Your task to perform on an android device: Go to privacy settings Image 0: 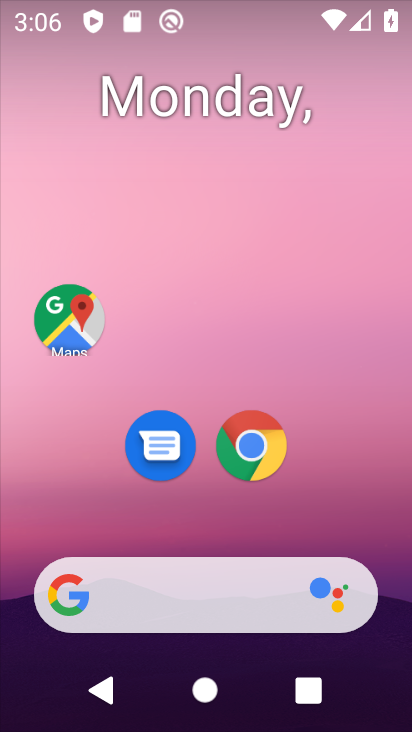
Step 0: drag from (310, 514) to (397, 77)
Your task to perform on an android device: Go to privacy settings Image 1: 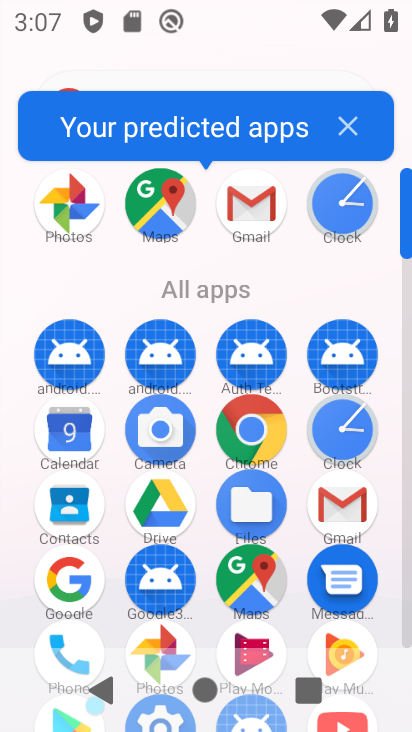
Step 1: click (407, 635)
Your task to perform on an android device: Go to privacy settings Image 2: 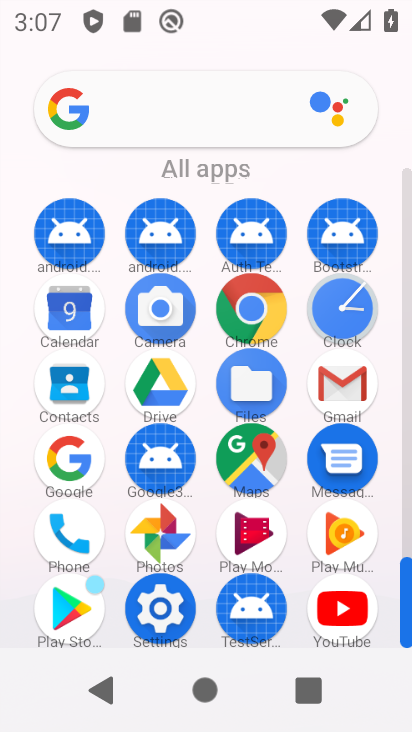
Step 2: click (145, 602)
Your task to perform on an android device: Go to privacy settings Image 3: 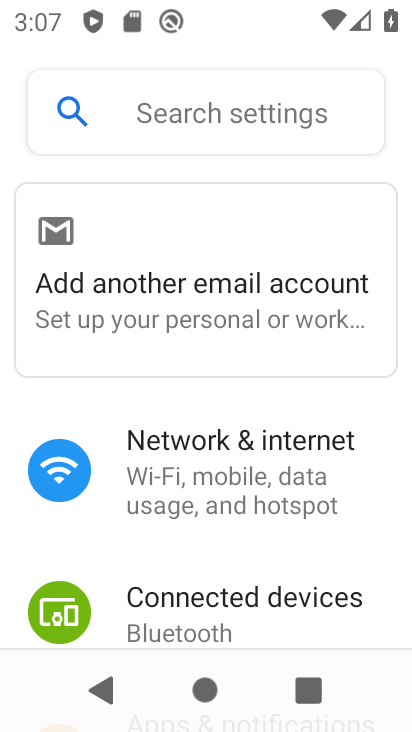
Step 3: drag from (227, 603) to (283, 191)
Your task to perform on an android device: Go to privacy settings Image 4: 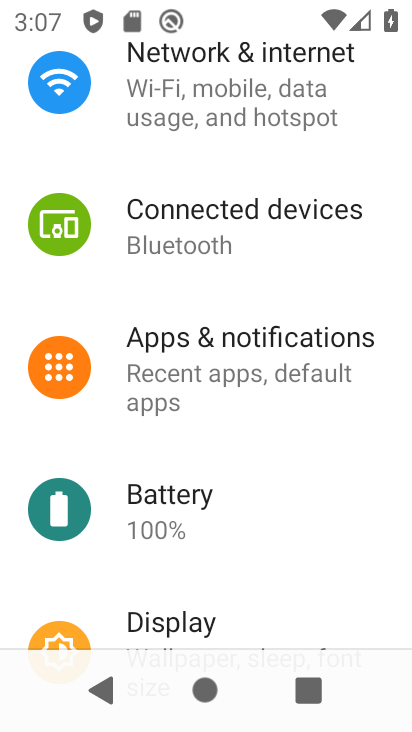
Step 4: drag from (296, 299) to (296, 250)
Your task to perform on an android device: Go to privacy settings Image 5: 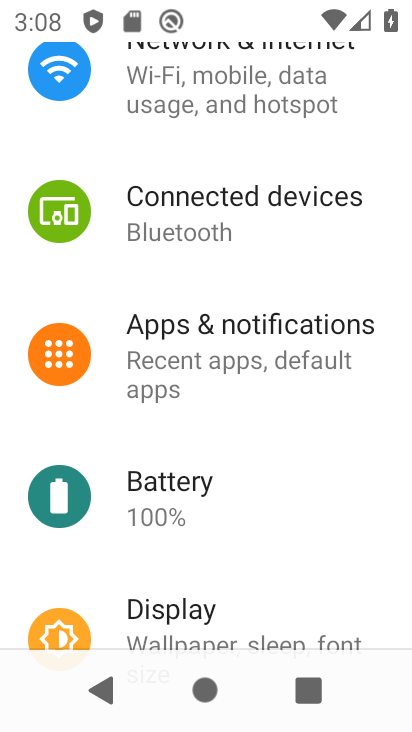
Step 5: drag from (230, 560) to (252, 235)
Your task to perform on an android device: Go to privacy settings Image 6: 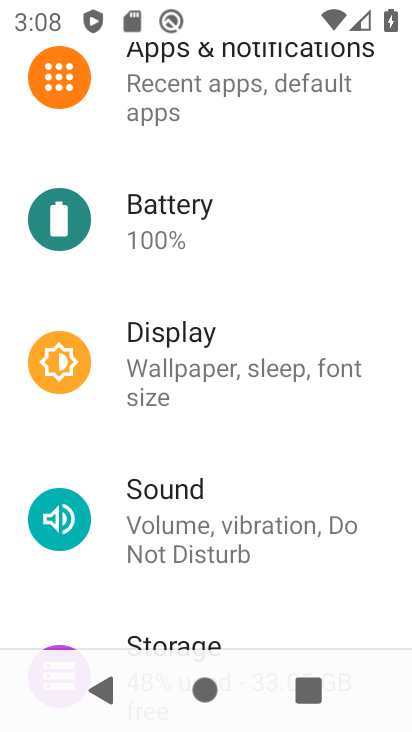
Step 6: drag from (243, 586) to (263, 280)
Your task to perform on an android device: Go to privacy settings Image 7: 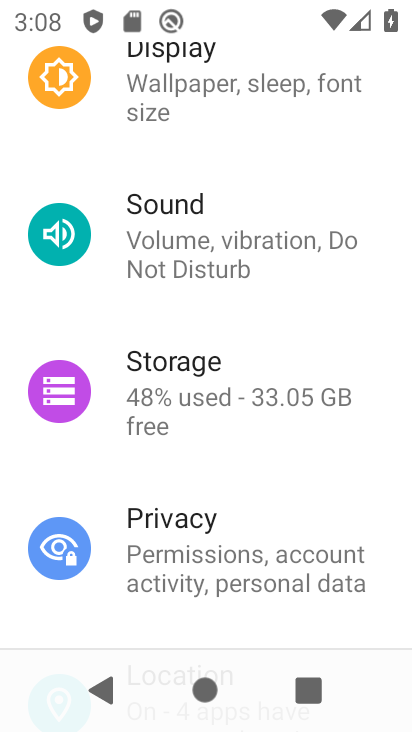
Step 7: click (202, 544)
Your task to perform on an android device: Go to privacy settings Image 8: 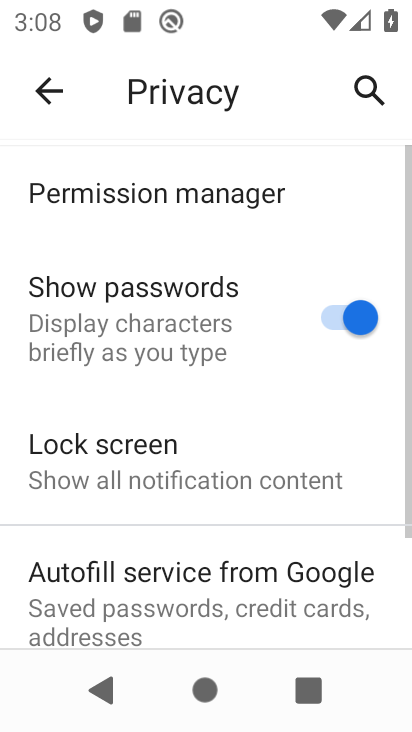
Step 8: task complete